Your task to perform on an android device: see tabs open on other devices in the chrome app Image 0: 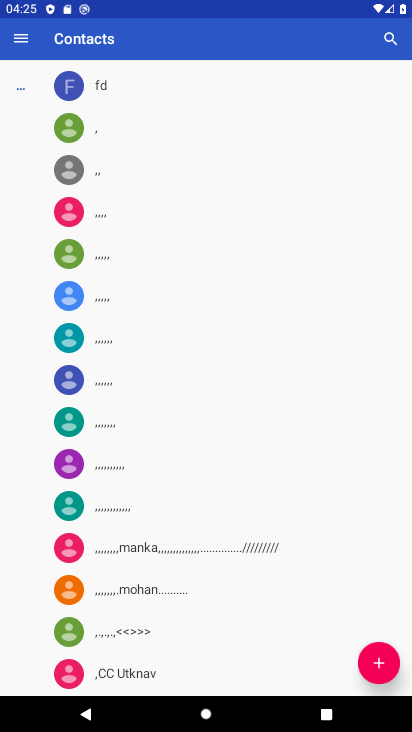
Step 0: press home button
Your task to perform on an android device: see tabs open on other devices in the chrome app Image 1: 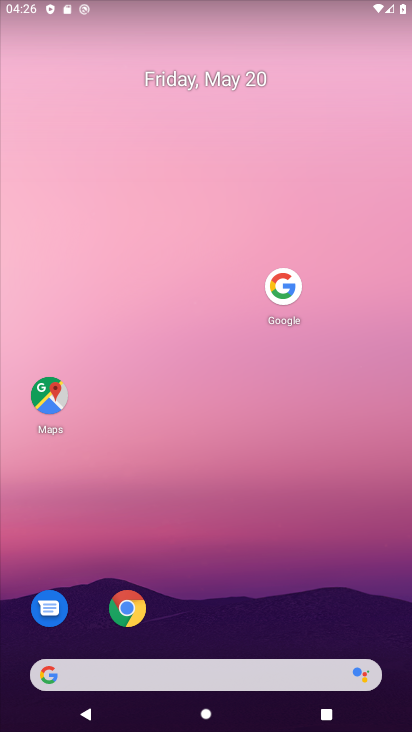
Step 1: click (126, 610)
Your task to perform on an android device: see tabs open on other devices in the chrome app Image 2: 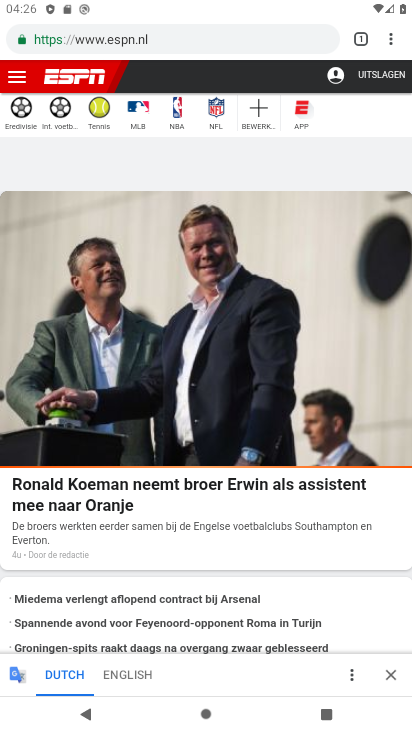
Step 2: click (385, 32)
Your task to perform on an android device: see tabs open on other devices in the chrome app Image 3: 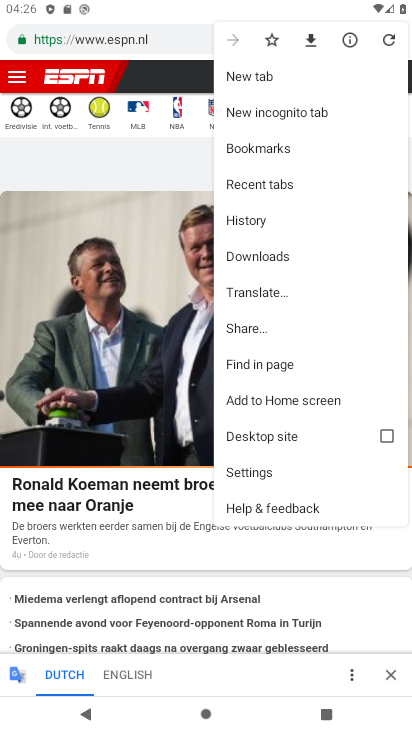
Step 3: click (249, 222)
Your task to perform on an android device: see tabs open on other devices in the chrome app Image 4: 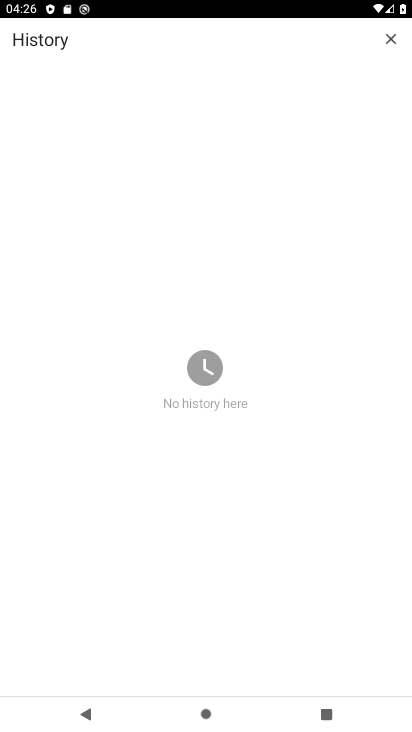
Step 4: task complete